Your task to perform on an android device: change the upload size in google photos Image 0: 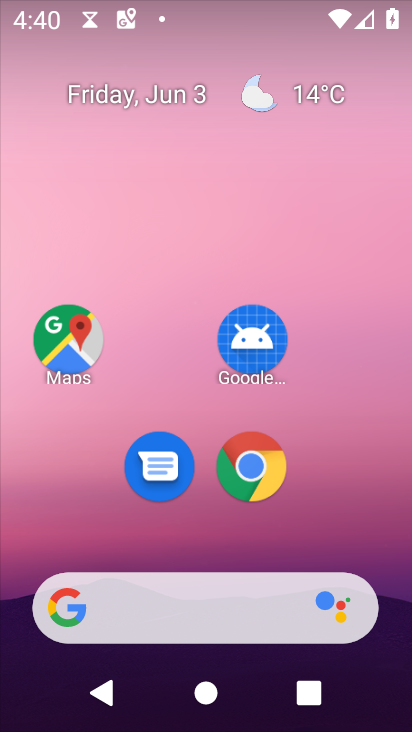
Step 0: drag from (313, 472) to (352, 171)
Your task to perform on an android device: change the upload size in google photos Image 1: 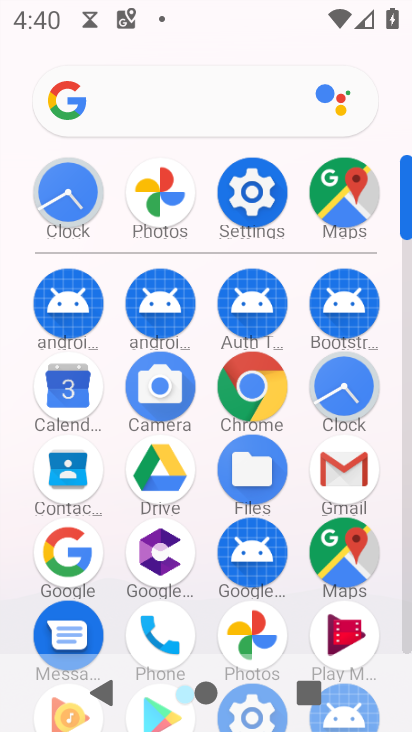
Step 1: click (161, 211)
Your task to perform on an android device: change the upload size in google photos Image 2: 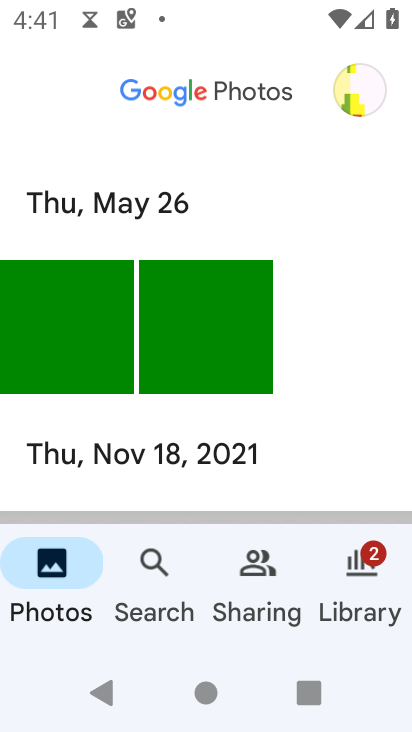
Step 2: click (191, 395)
Your task to perform on an android device: change the upload size in google photos Image 3: 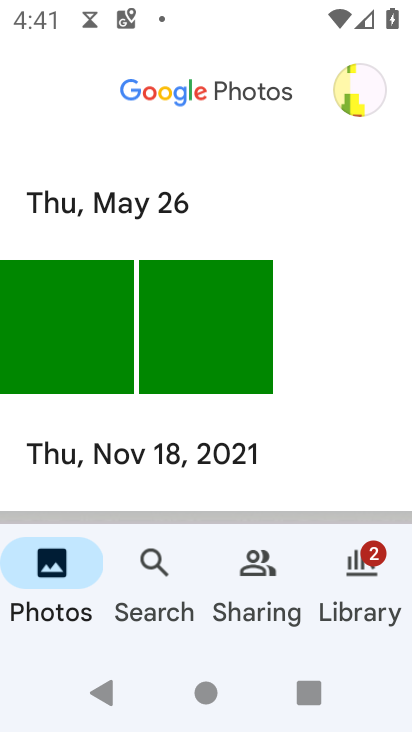
Step 3: click (198, 368)
Your task to perform on an android device: change the upload size in google photos Image 4: 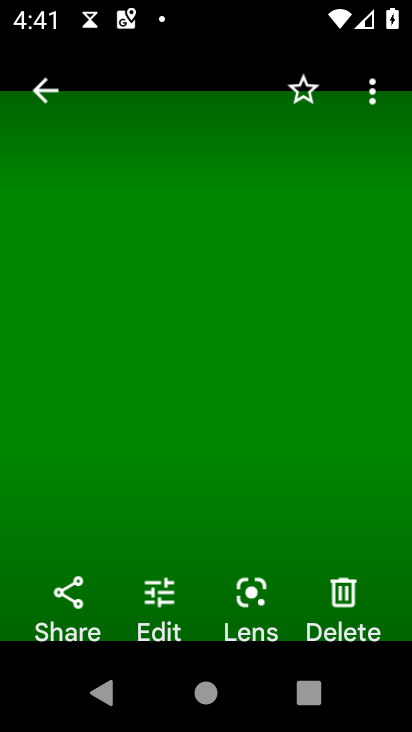
Step 4: click (373, 100)
Your task to perform on an android device: change the upload size in google photos Image 5: 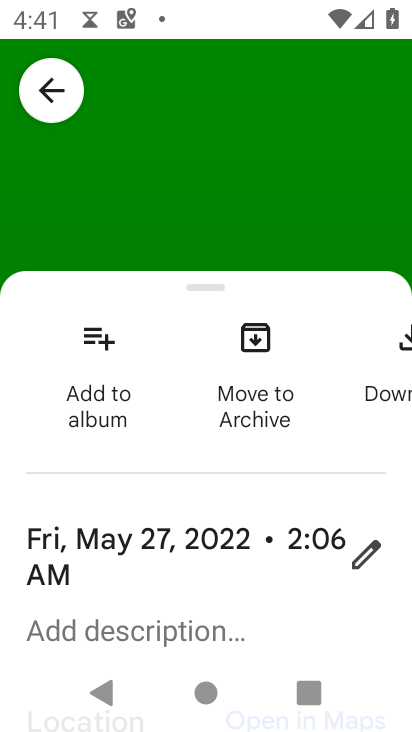
Step 5: task complete